Your task to perform on an android device: Open privacy settings Image 0: 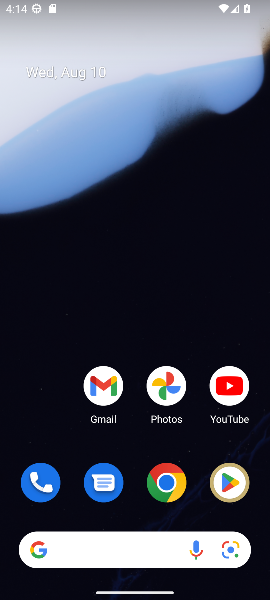
Step 0: drag from (63, 408) to (89, 51)
Your task to perform on an android device: Open privacy settings Image 1: 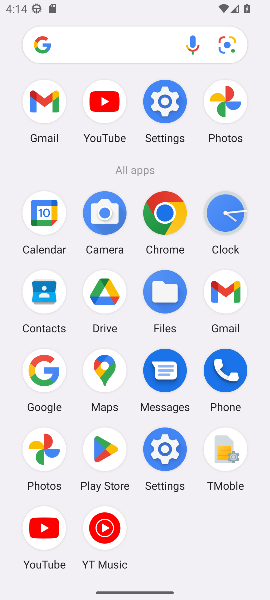
Step 1: click (166, 100)
Your task to perform on an android device: Open privacy settings Image 2: 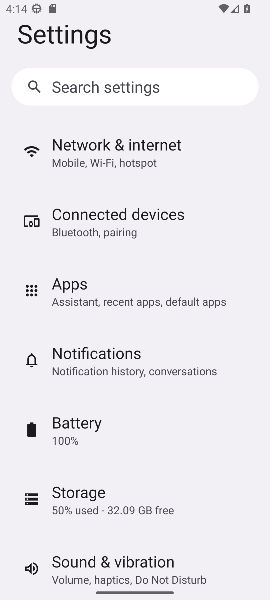
Step 2: drag from (163, 200) to (178, 178)
Your task to perform on an android device: Open privacy settings Image 3: 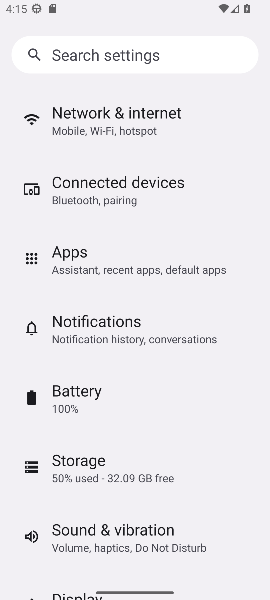
Step 3: drag from (160, 499) to (179, 158)
Your task to perform on an android device: Open privacy settings Image 4: 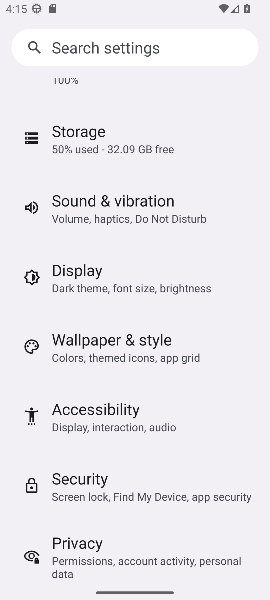
Step 4: drag from (149, 457) to (155, 233)
Your task to perform on an android device: Open privacy settings Image 5: 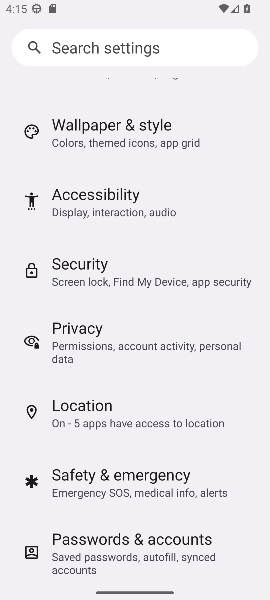
Step 5: click (152, 337)
Your task to perform on an android device: Open privacy settings Image 6: 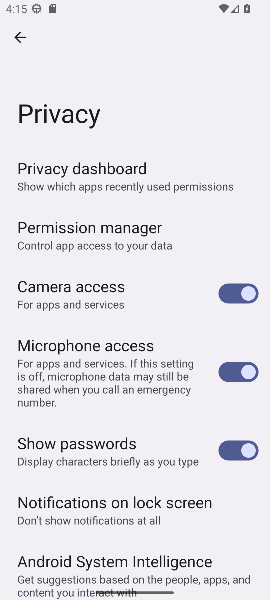
Step 6: task complete